Your task to perform on an android device: open app "Fetch Rewards" (install if not already installed) and enter user name: "Westwood@yahoo.com" and password: "qualifying" Image 0: 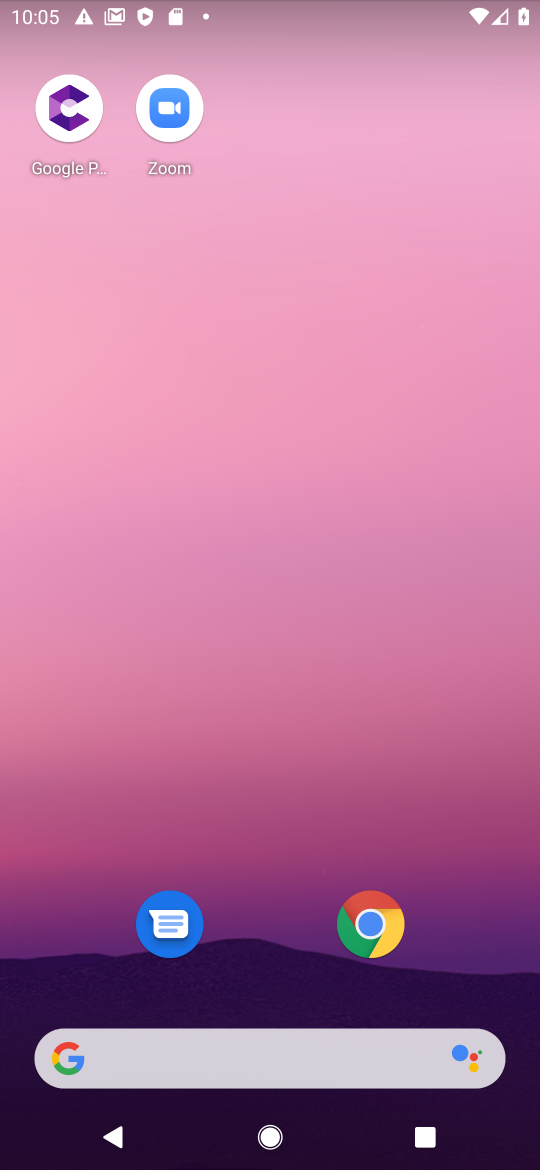
Step 0: drag from (280, 1090) to (206, 203)
Your task to perform on an android device: open app "Fetch Rewards" (install if not already installed) and enter user name: "Westwood@yahoo.com" and password: "qualifying" Image 1: 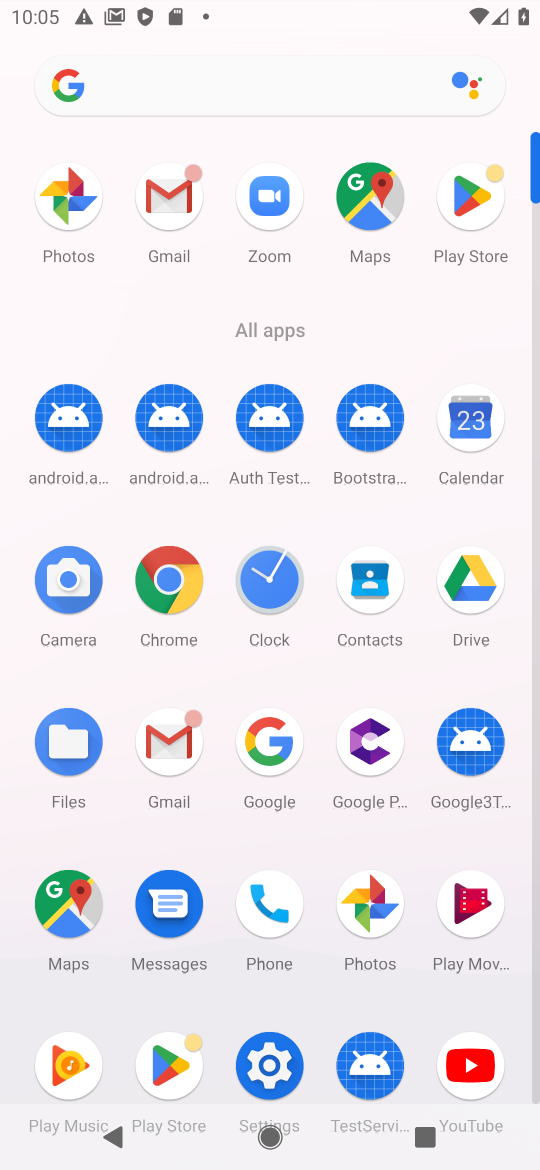
Step 1: click (479, 228)
Your task to perform on an android device: open app "Fetch Rewards" (install if not already installed) and enter user name: "Westwood@yahoo.com" and password: "qualifying" Image 2: 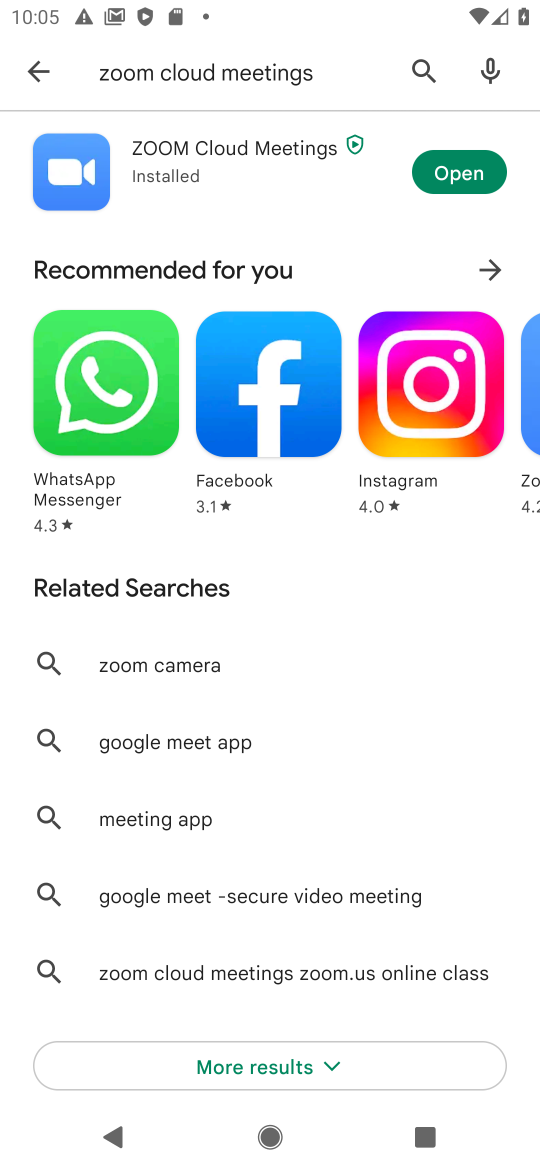
Step 2: click (420, 80)
Your task to perform on an android device: open app "Fetch Rewards" (install if not already installed) and enter user name: "Westwood@yahoo.com" and password: "qualifying" Image 3: 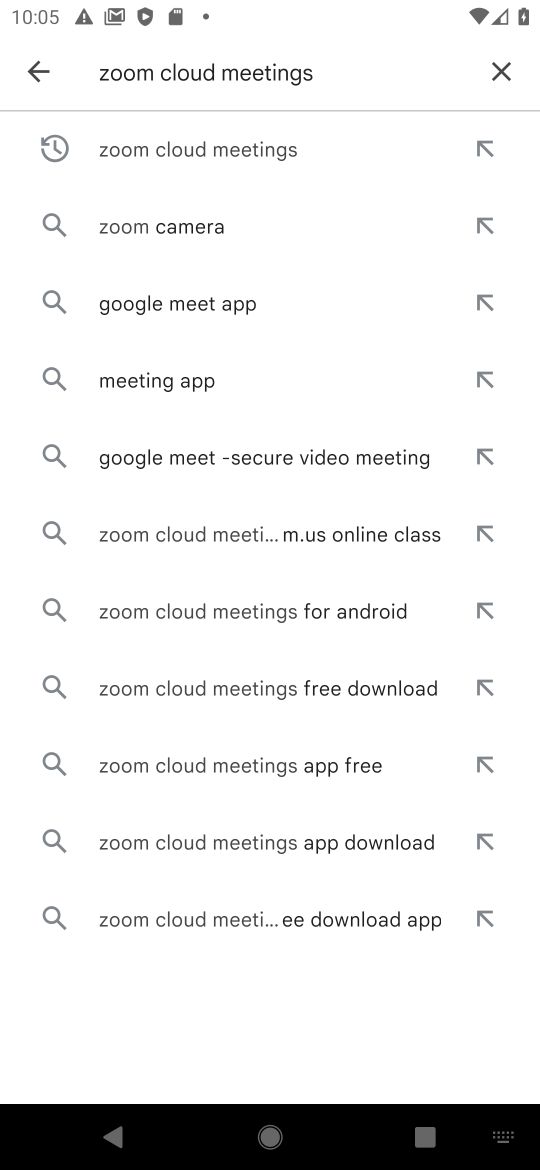
Step 3: click (496, 73)
Your task to perform on an android device: open app "Fetch Rewards" (install if not already installed) and enter user name: "Westwood@yahoo.com" and password: "qualifying" Image 4: 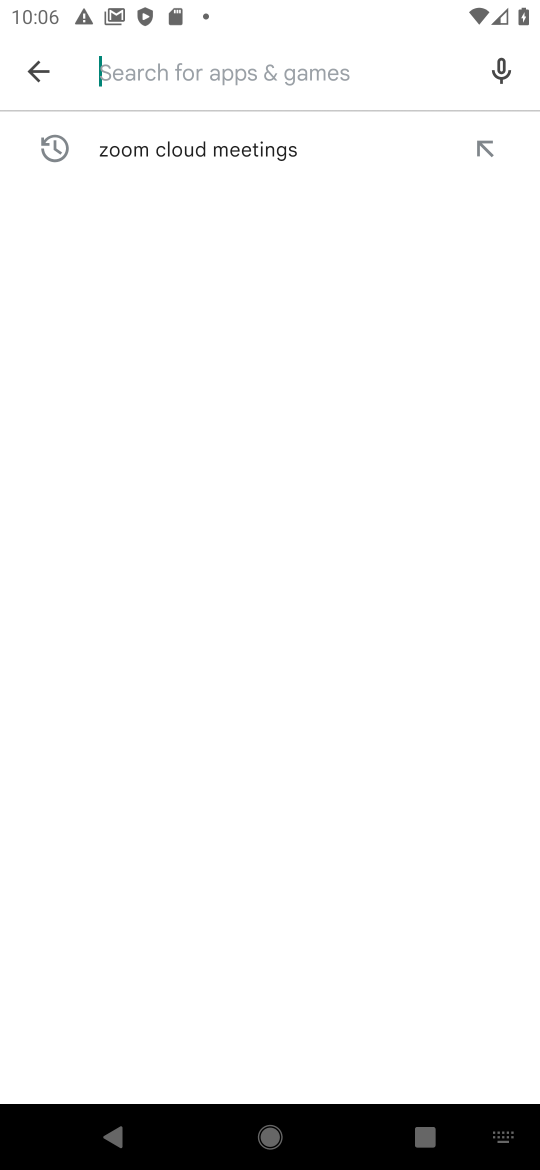
Step 4: type "fetch rewards"
Your task to perform on an android device: open app "Fetch Rewards" (install if not already installed) and enter user name: "Westwood@yahoo.com" and password: "qualifying" Image 5: 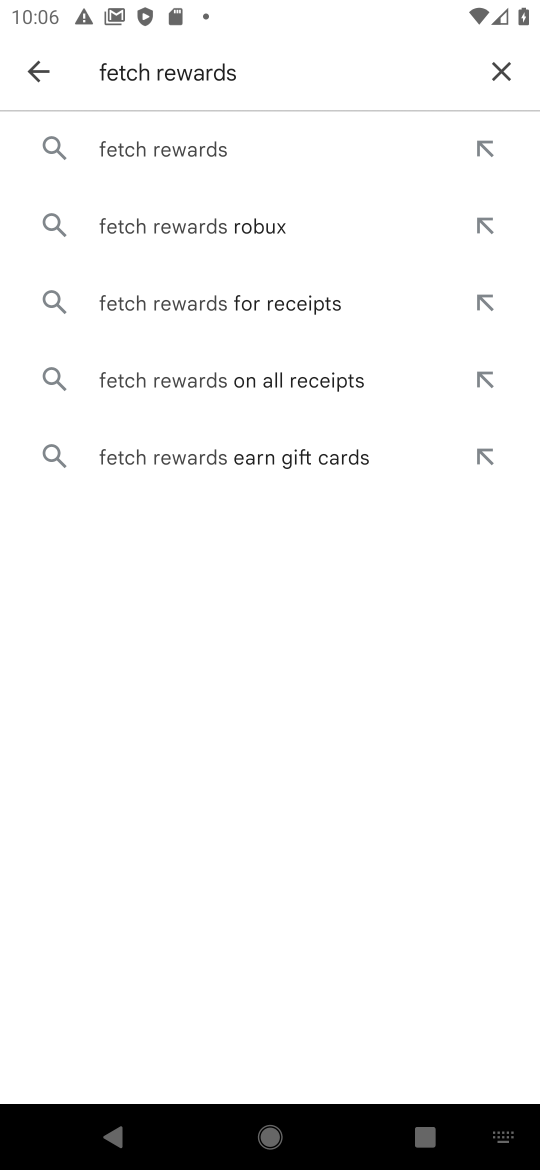
Step 5: click (203, 159)
Your task to perform on an android device: open app "Fetch Rewards" (install if not already installed) and enter user name: "Westwood@yahoo.com" and password: "qualifying" Image 6: 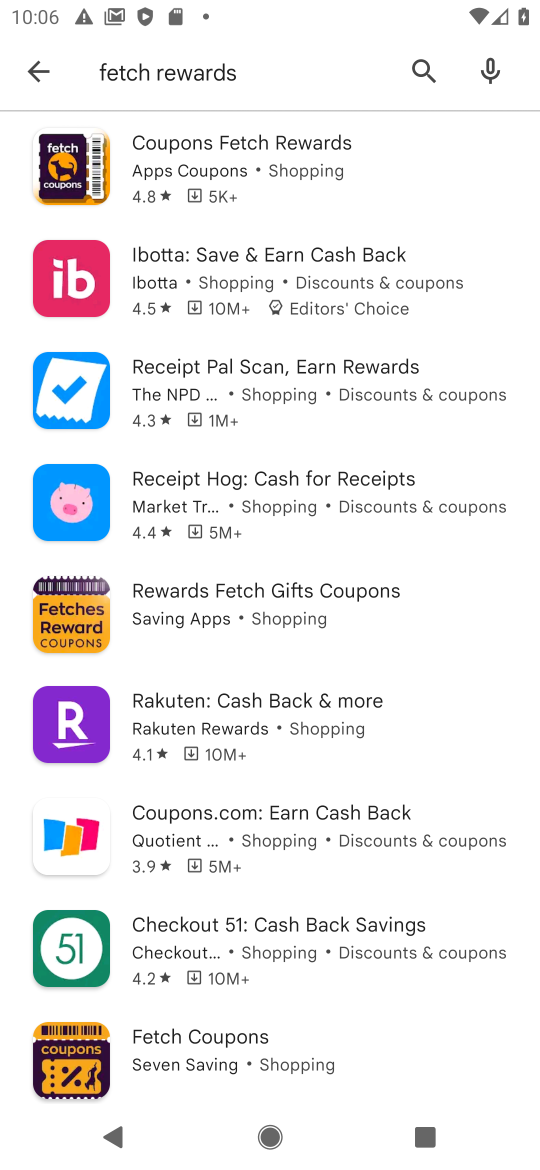
Step 6: task complete